Your task to perform on an android device: turn on wifi Image 0: 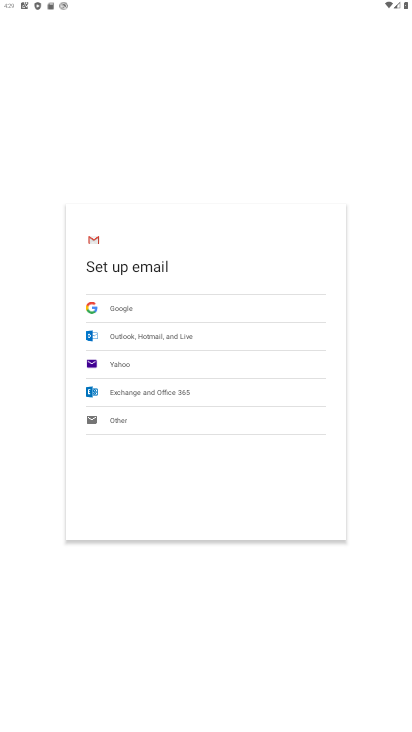
Step 0: press home button
Your task to perform on an android device: turn on wifi Image 1: 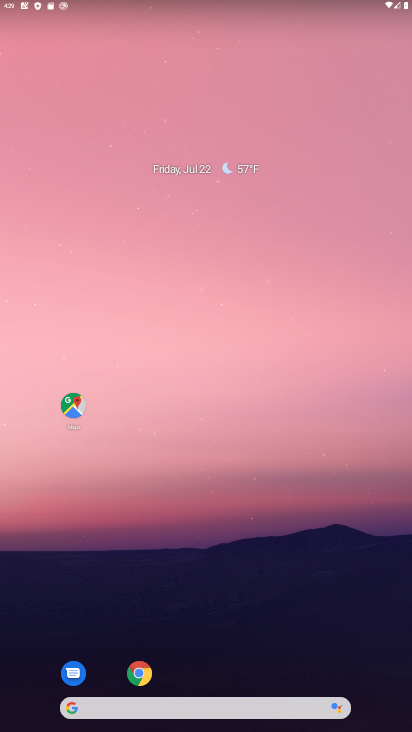
Step 1: task complete